Your task to perform on an android device: turn on the 12-hour format for clock Image 0: 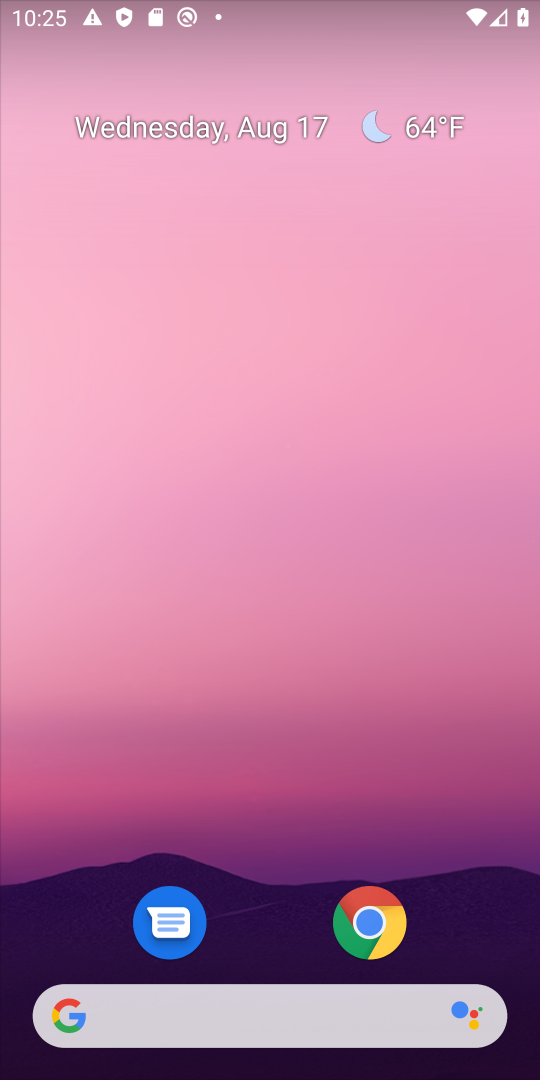
Step 0: drag from (262, 908) to (359, 153)
Your task to perform on an android device: turn on the 12-hour format for clock Image 1: 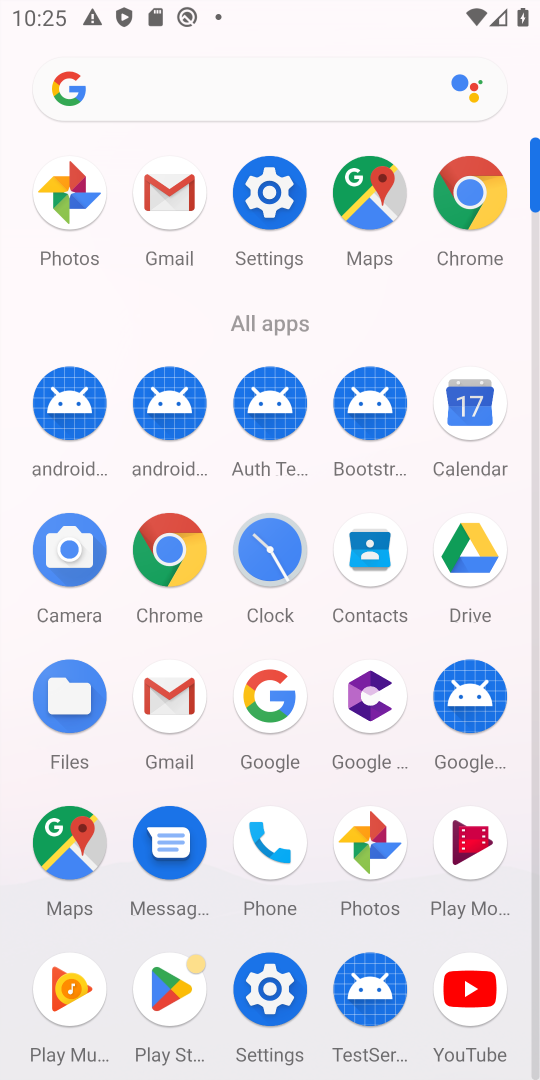
Step 1: click (254, 561)
Your task to perform on an android device: turn on the 12-hour format for clock Image 2: 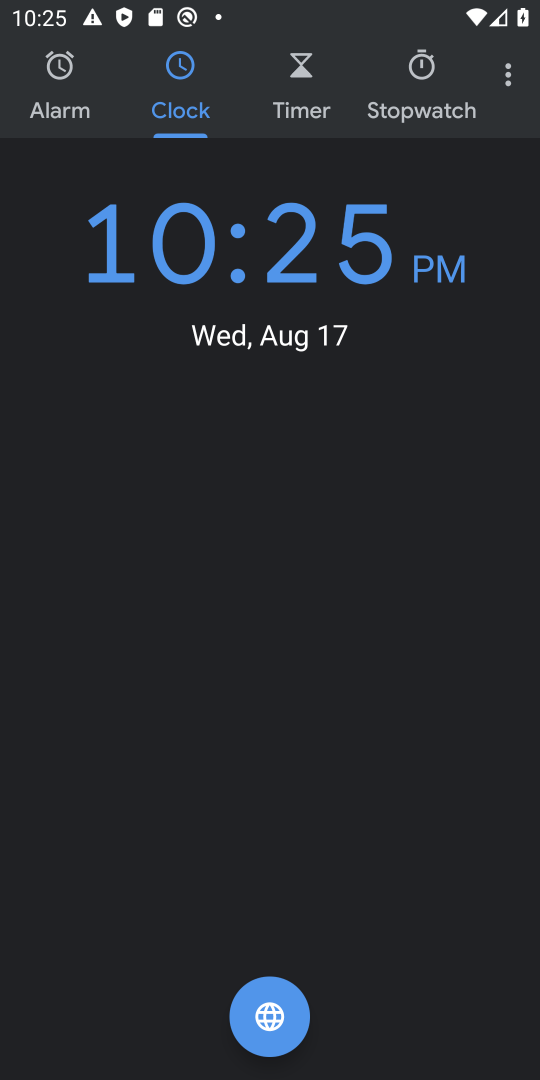
Step 2: click (515, 65)
Your task to perform on an android device: turn on the 12-hour format for clock Image 3: 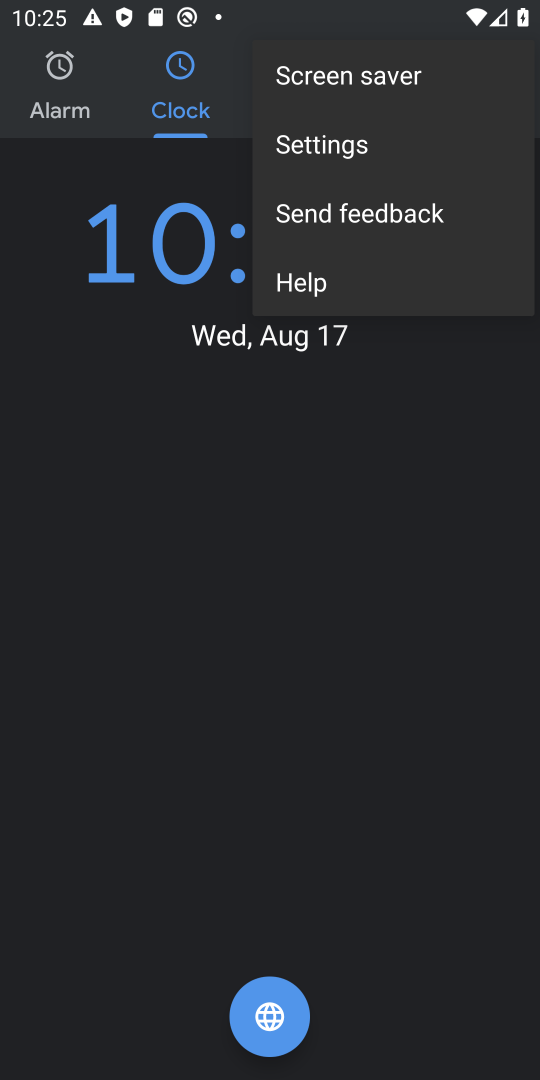
Step 3: click (309, 166)
Your task to perform on an android device: turn on the 12-hour format for clock Image 4: 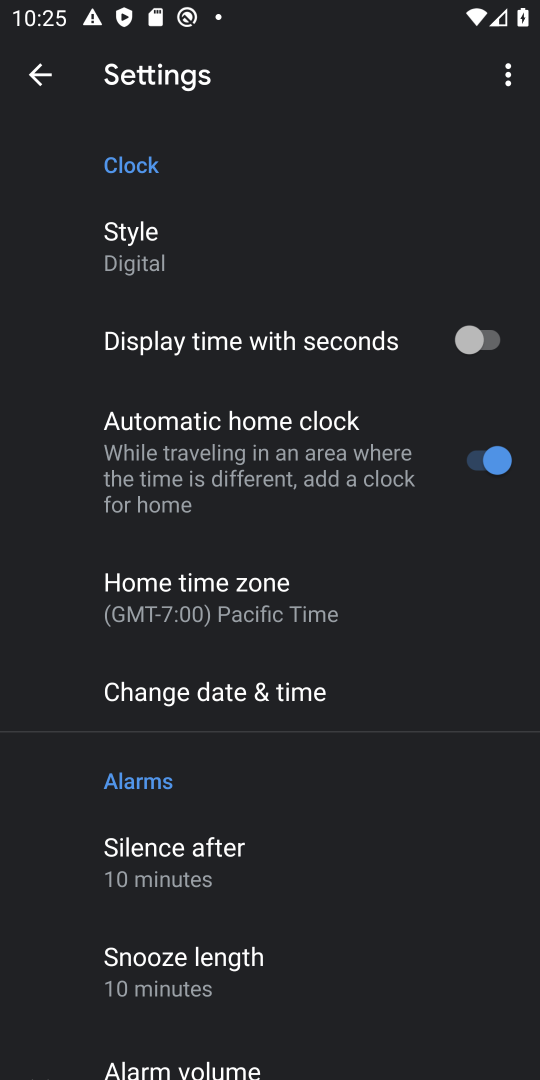
Step 4: click (288, 724)
Your task to perform on an android device: turn on the 12-hour format for clock Image 5: 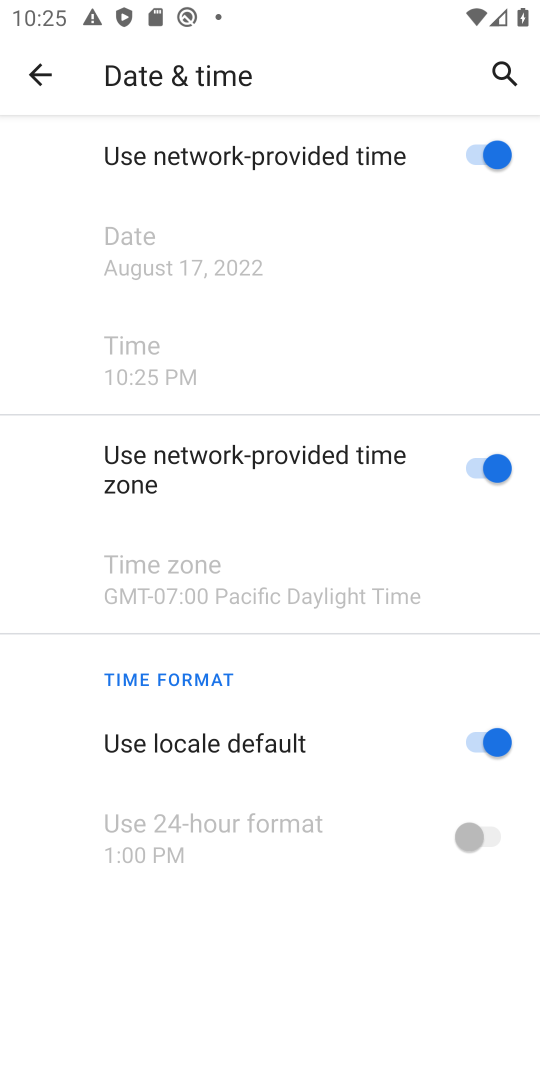
Step 5: task complete